Your task to perform on an android device: Open settings Image 0: 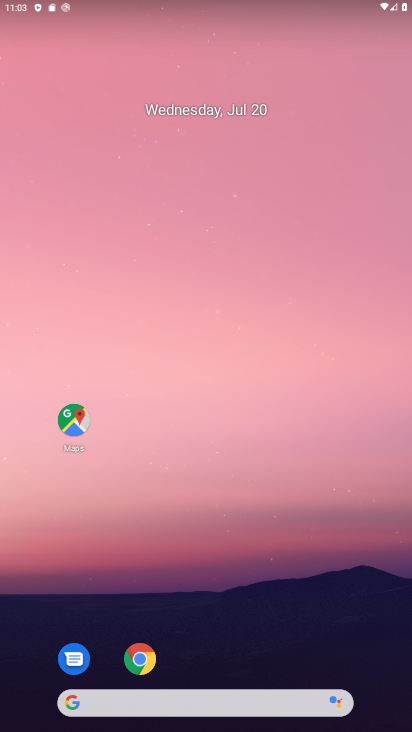
Step 0: drag from (209, 650) to (250, 60)
Your task to perform on an android device: Open settings Image 1: 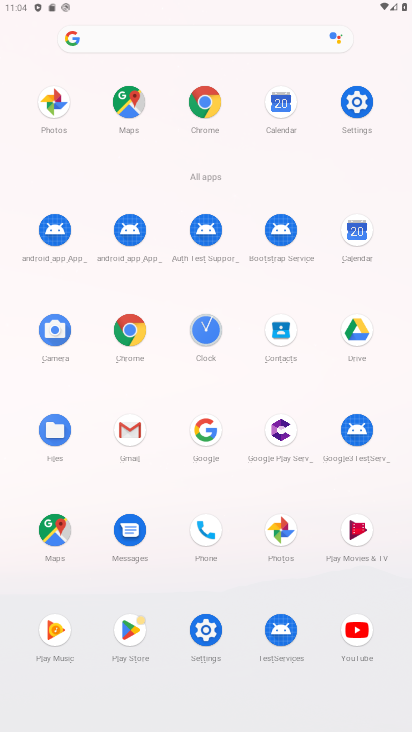
Step 1: click (210, 649)
Your task to perform on an android device: Open settings Image 2: 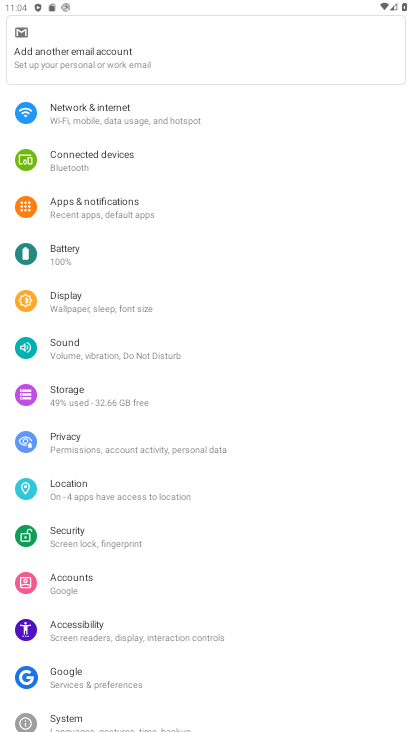
Step 2: task complete